Your task to perform on an android device: visit the assistant section in the google photos Image 0: 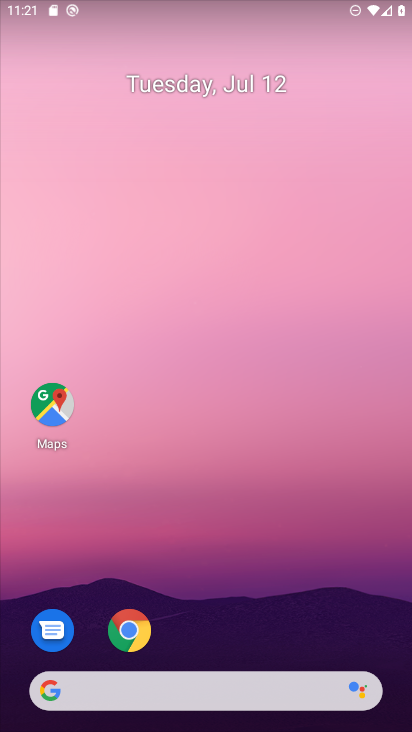
Step 0: drag from (319, 530) to (265, 140)
Your task to perform on an android device: visit the assistant section in the google photos Image 1: 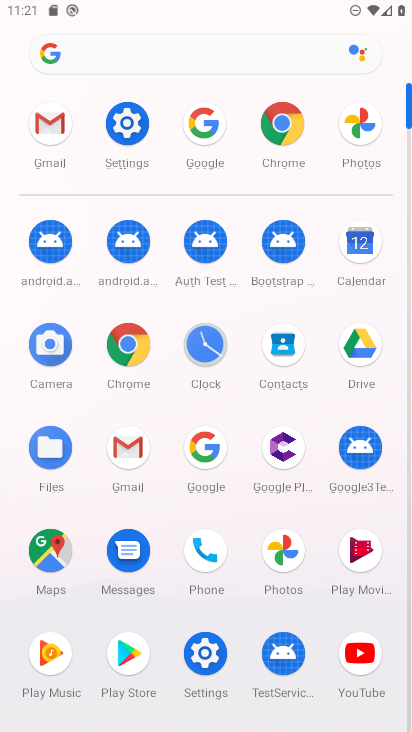
Step 1: click (294, 553)
Your task to perform on an android device: visit the assistant section in the google photos Image 2: 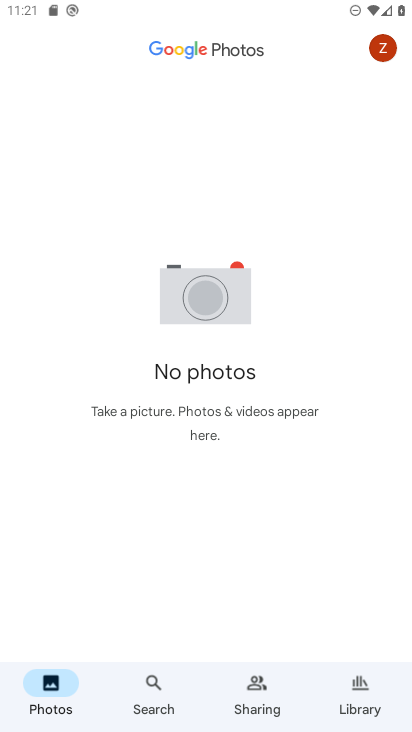
Step 2: task complete